Your task to perform on an android device: Open notification settings Image 0: 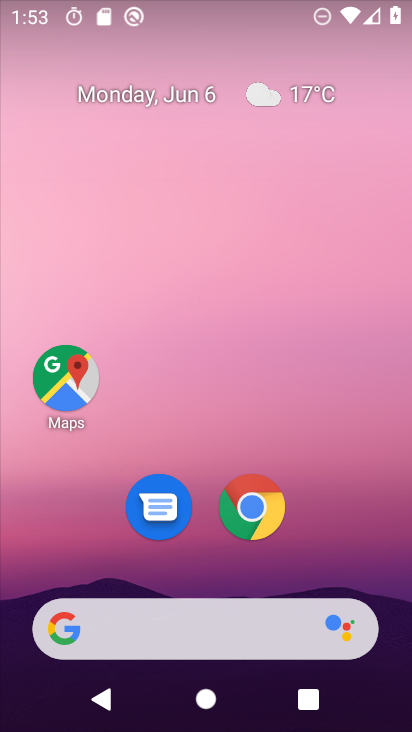
Step 0: drag from (202, 670) to (164, 192)
Your task to perform on an android device: Open notification settings Image 1: 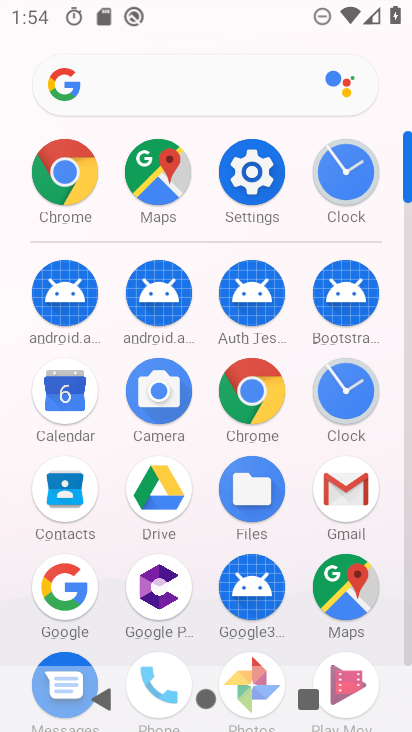
Step 1: click (248, 156)
Your task to perform on an android device: Open notification settings Image 2: 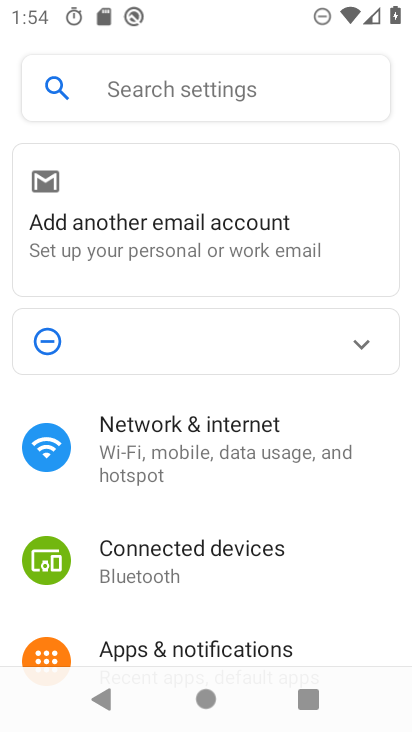
Step 2: click (163, 91)
Your task to perform on an android device: Open notification settings Image 3: 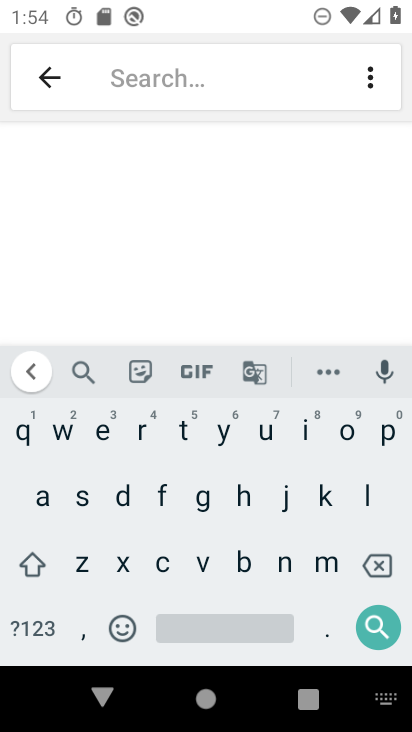
Step 3: click (278, 561)
Your task to perform on an android device: Open notification settings Image 4: 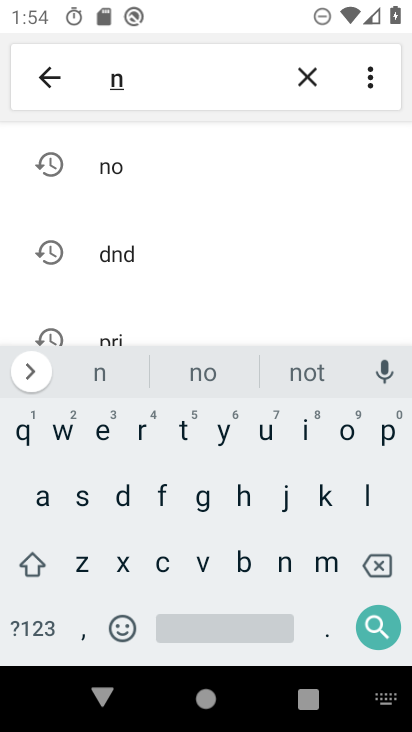
Step 4: click (339, 428)
Your task to perform on an android device: Open notification settings Image 5: 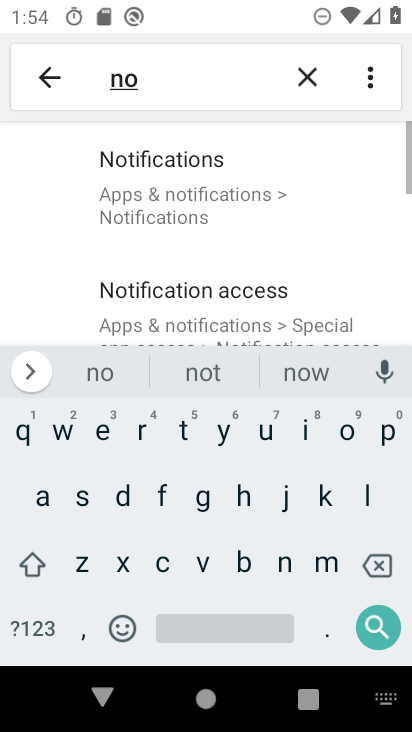
Step 5: click (158, 187)
Your task to perform on an android device: Open notification settings Image 6: 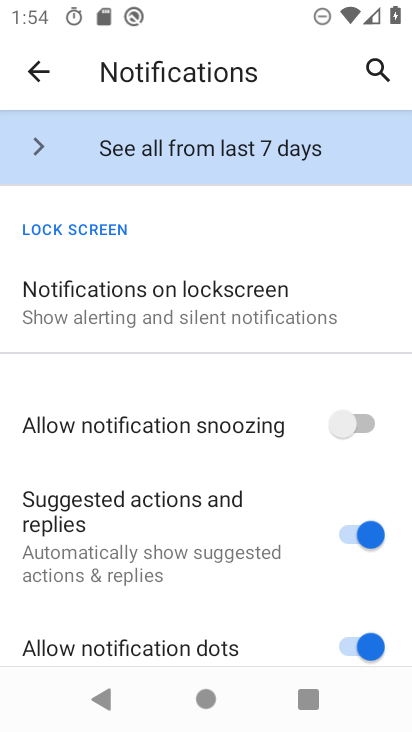
Step 6: click (142, 287)
Your task to perform on an android device: Open notification settings Image 7: 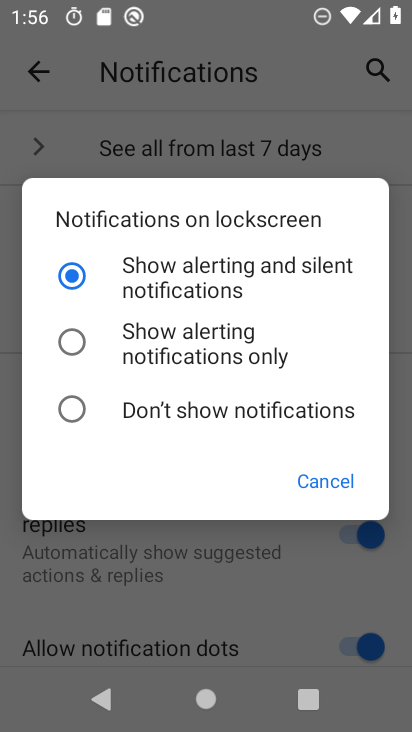
Step 7: task complete